Your task to perform on an android device: Go to location settings Image 0: 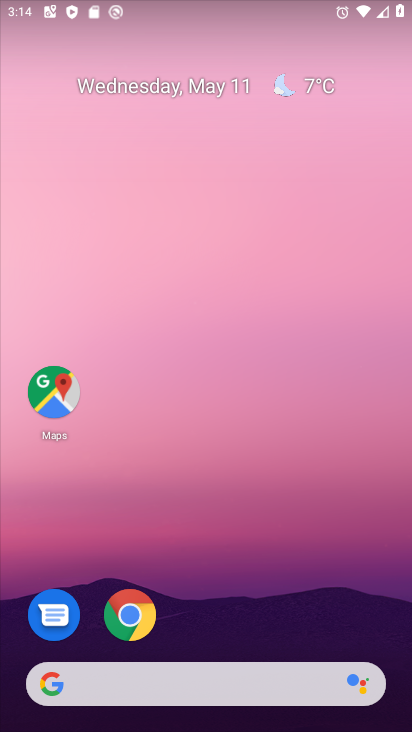
Step 0: drag from (212, 635) to (213, 171)
Your task to perform on an android device: Go to location settings Image 1: 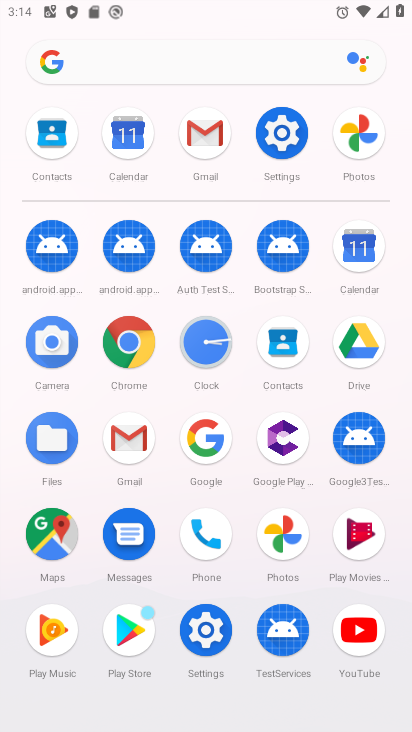
Step 1: click (283, 146)
Your task to perform on an android device: Go to location settings Image 2: 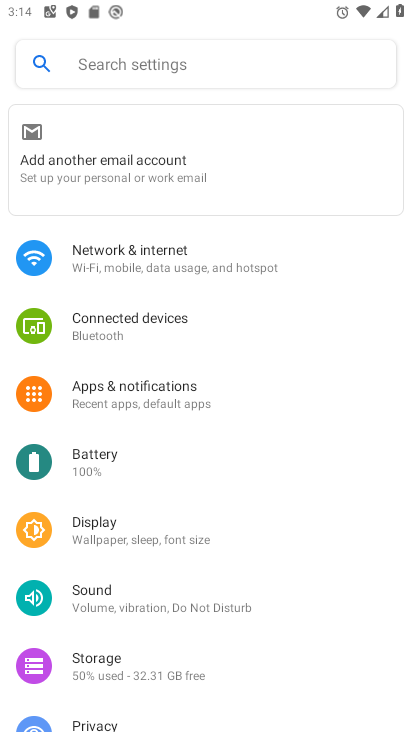
Step 2: drag from (251, 580) to (326, 38)
Your task to perform on an android device: Go to location settings Image 3: 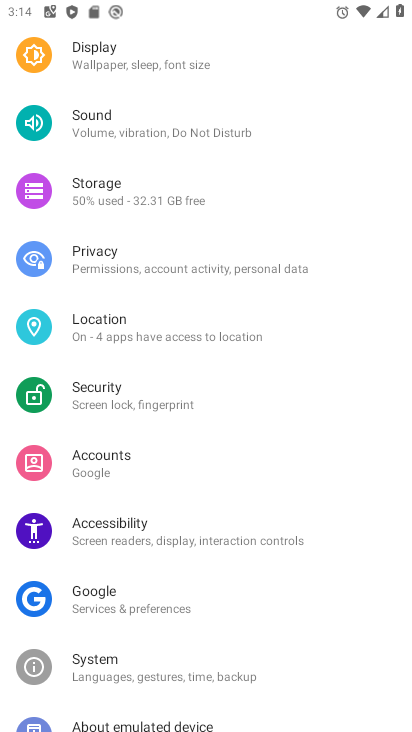
Step 3: drag from (220, 638) to (316, 233)
Your task to perform on an android device: Go to location settings Image 4: 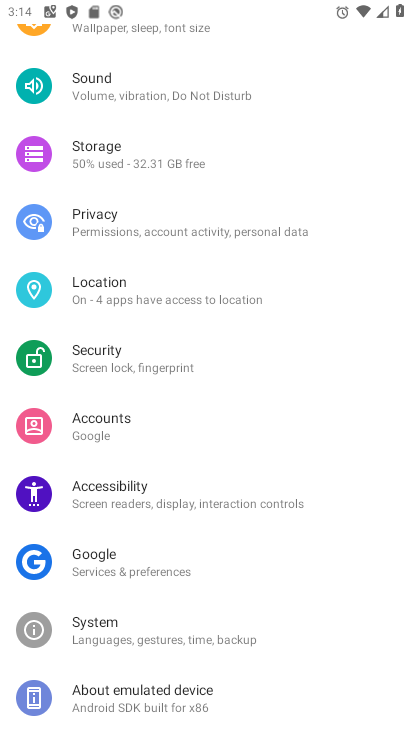
Step 4: click (147, 299)
Your task to perform on an android device: Go to location settings Image 5: 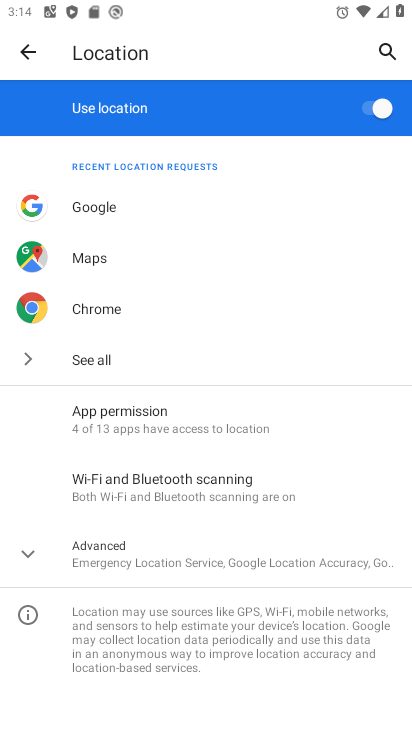
Step 5: task complete